Your task to perform on an android device: turn on the 12-hour format for clock Image 0: 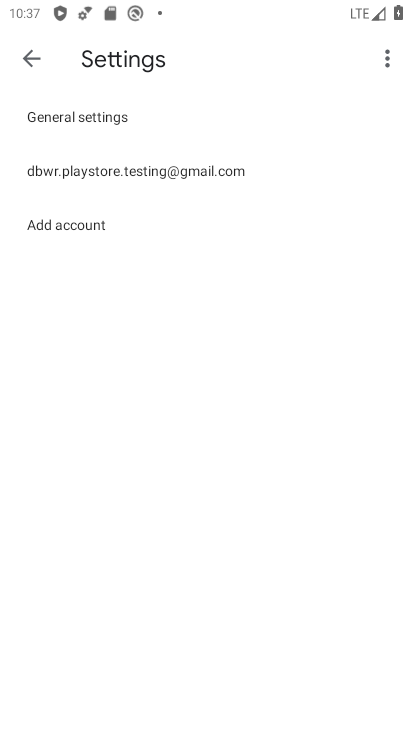
Step 0: press home button
Your task to perform on an android device: turn on the 12-hour format for clock Image 1: 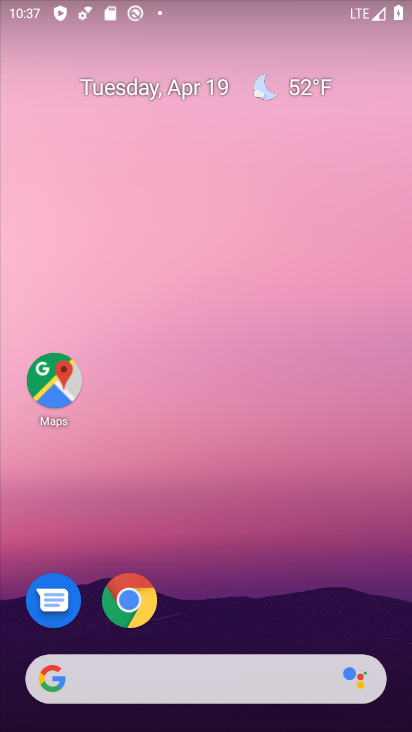
Step 1: drag from (258, 599) to (232, 223)
Your task to perform on an android device: turn on the 12-hour format for clock Image 2: 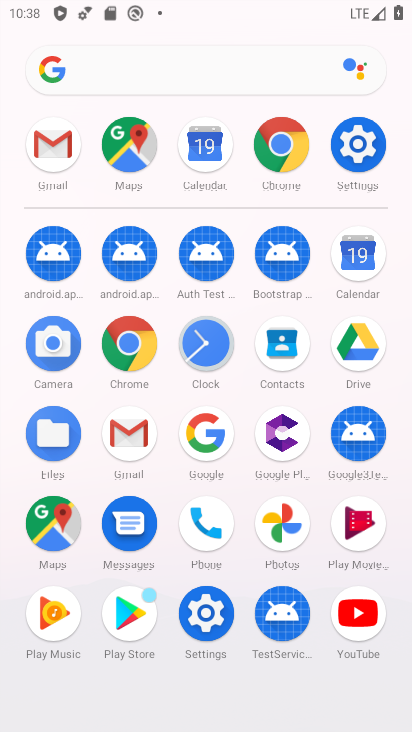
Step 2: click (204, 347)
Your task to perform on an android device: turn on the 12-hour format for clock Image 3: 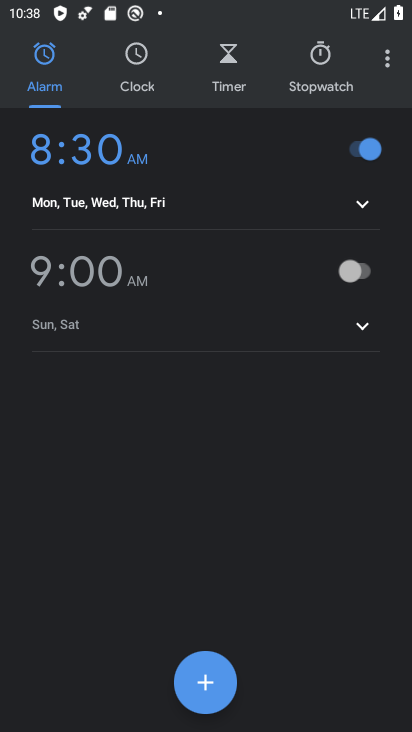
Step 3: click (388, 63)
Your task to perform on an android device: turn on the 12-hour format for clock Image 4: 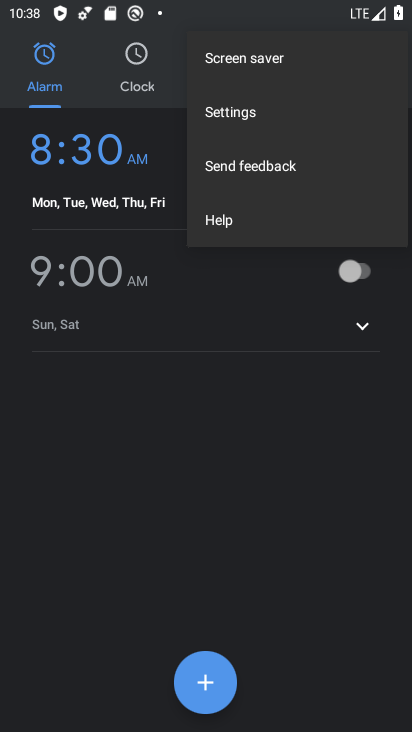
Step 4: click (330, 116)
Your task to perform on an android device: turn on the 12-hour format for clock Image 5: 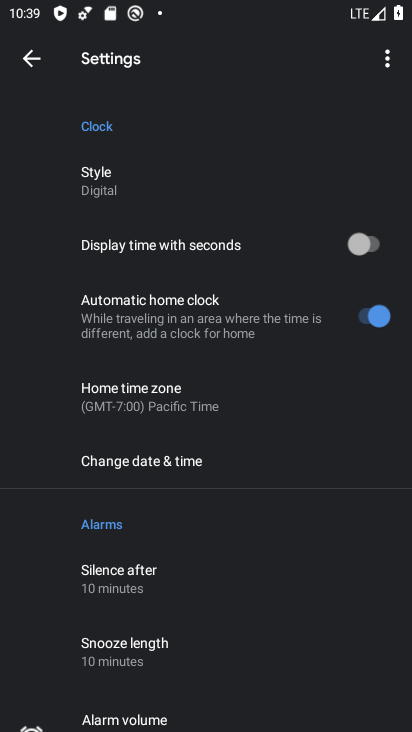
Step 5: click (240, 461)
Your task to perform on an android device: turn on the 12-hour format for clock Image 6: 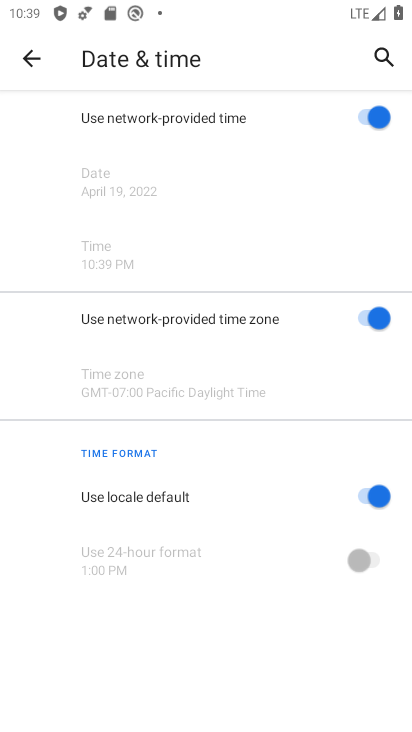
Step 6: task complete